Your task to perform on an android device: find photos in the google photos app Image 0: 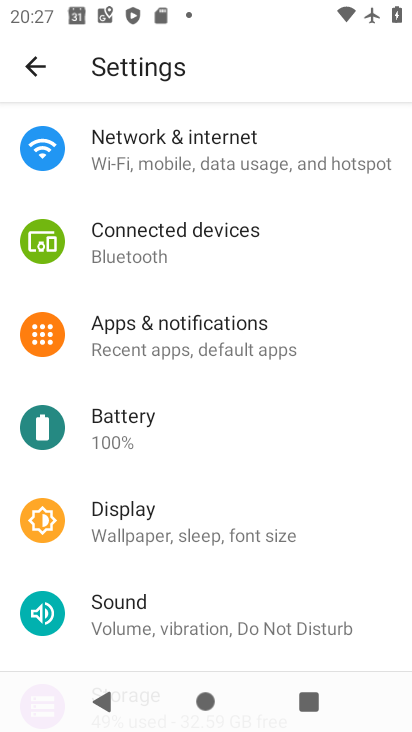
Step 0: press home button
Your task to perform on an android device: find photos in the google photos app Image 1: 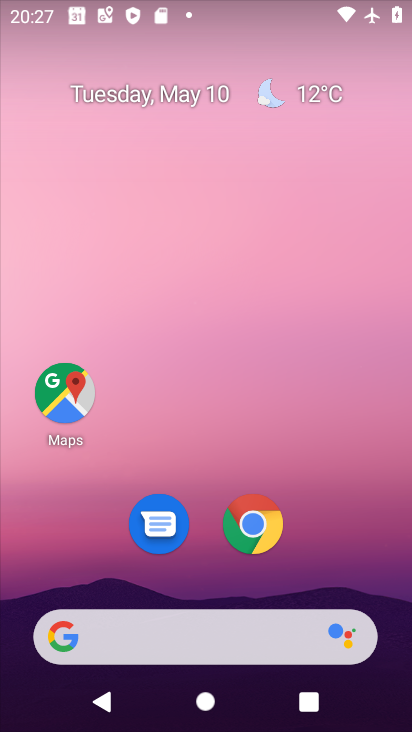
Step 1: drag from (328, 526) to (337, 42)
Your task to perform on an android device: find photos in the google photos app Image 2: 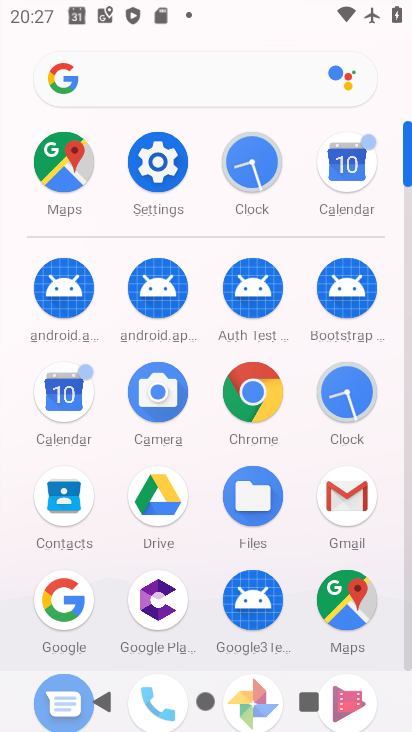
Step 2: drag from (287, 535) to (298, 271)
Your task to perform on an android device: find photos in the google photos app Image 3: 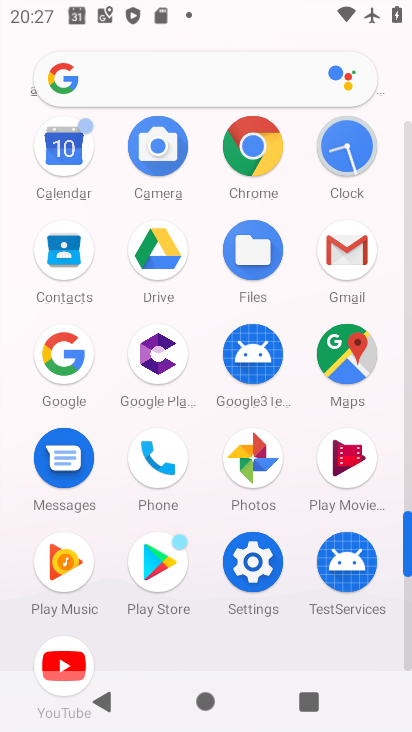
Step 3: click (265, 434)
Your task to perform on an android device: find photos in the google photos app Image 4: 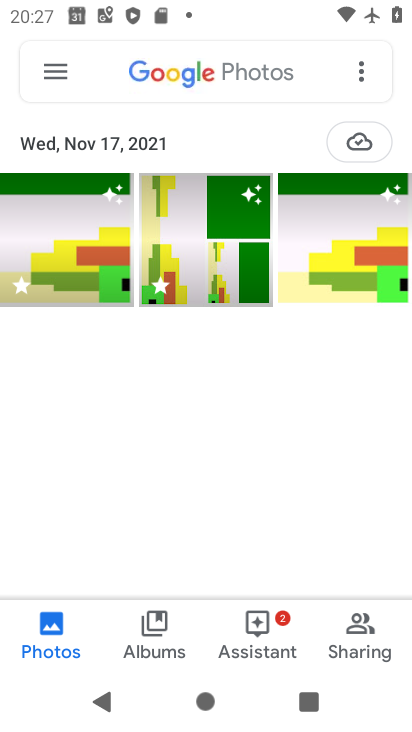
Step 4: click (79, 249)
Your task to perform on an android device: find photos in the google photos app Image 5: 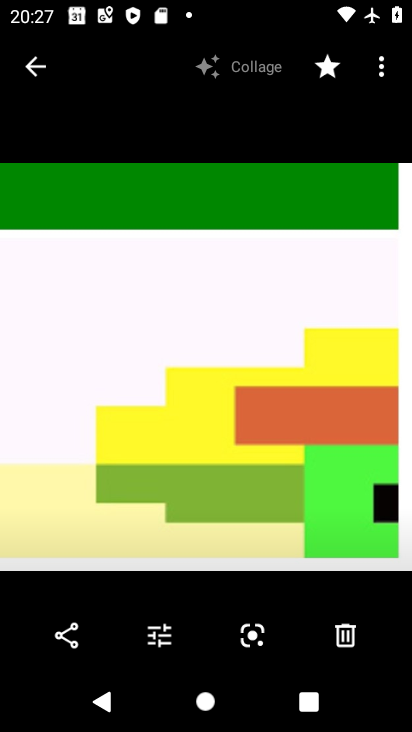
Step 5: task complete